Your task to perform on an android device: turn off location history Image 0: 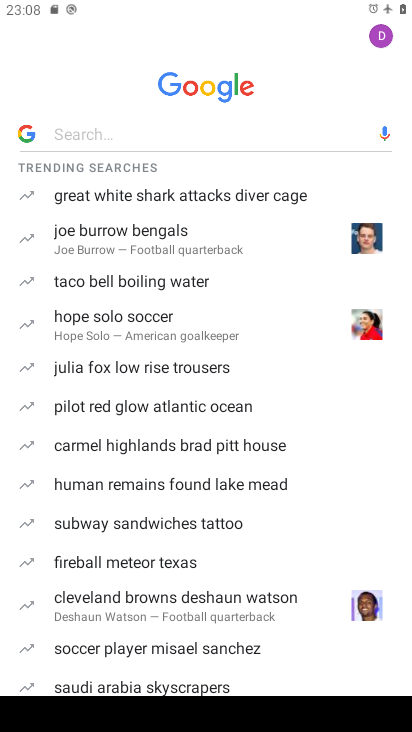
Step 0: press home button
Your task to perform on an android device: turn off location history Image 1: 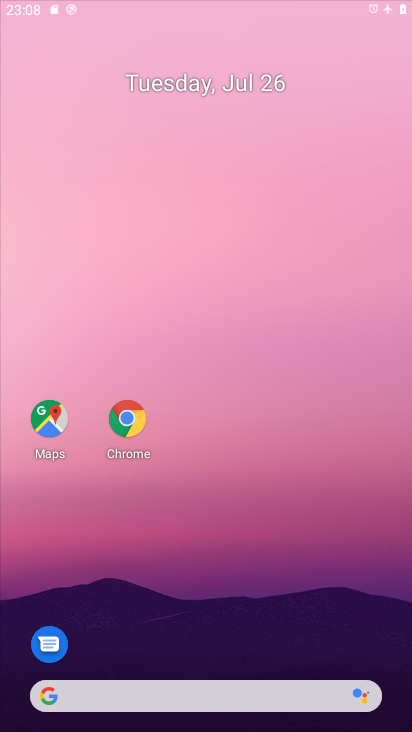
Step 1: drag from (174, 623) to (169, 156)
Your task to perform on an android device: turn off location history Image 2: 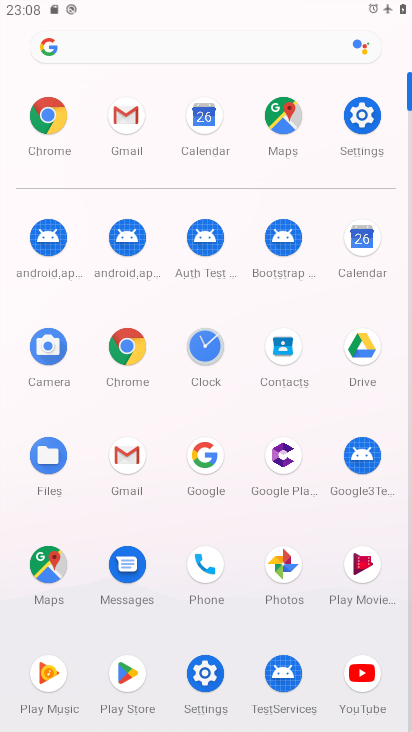
Step 2: click (370, 111)
Your task to perform on an android device: turn off location history Image 3: 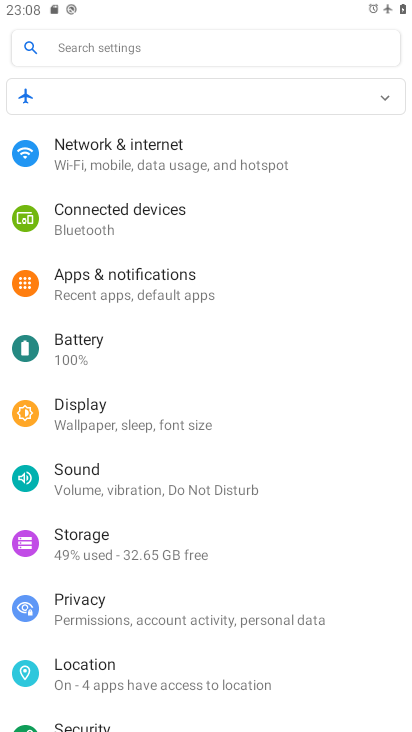
Step 3: click (112, 679)
Your task to perform on an android device: turn off location history Image 4: 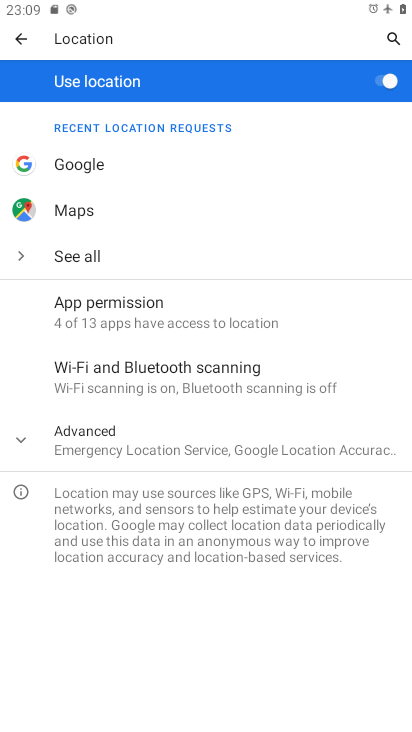
Step 4: click (143, 451)
Your task to perform on an android device: turn off location history Image 5: 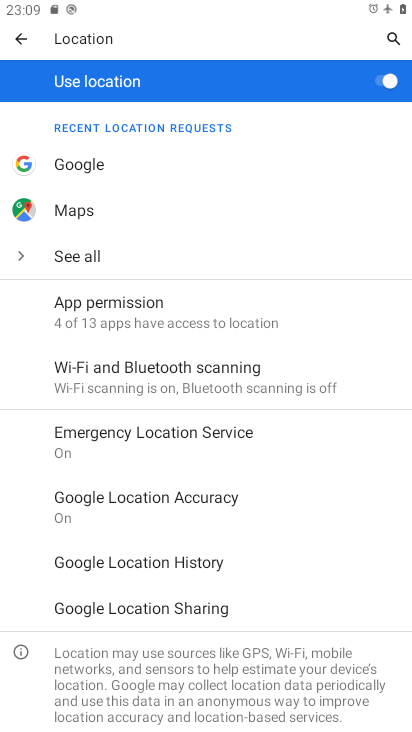
Step 5: click (199, 555)
Your task to perform on an android device: turn off location history Image 6: 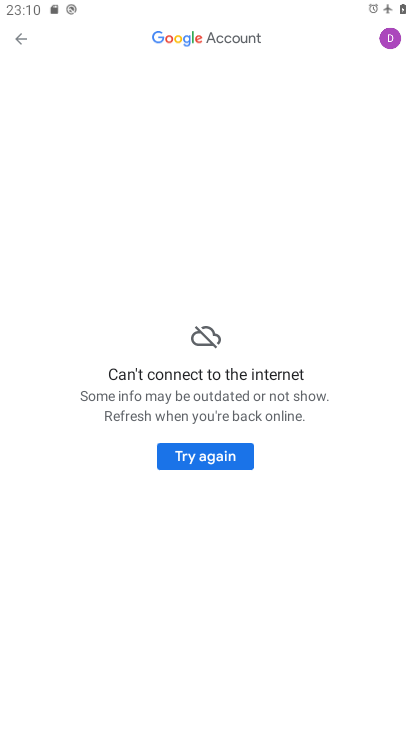
Step 6: task complete